Your task to perform on an android device: Search for seafood restaurants on Google Maps Image 0: 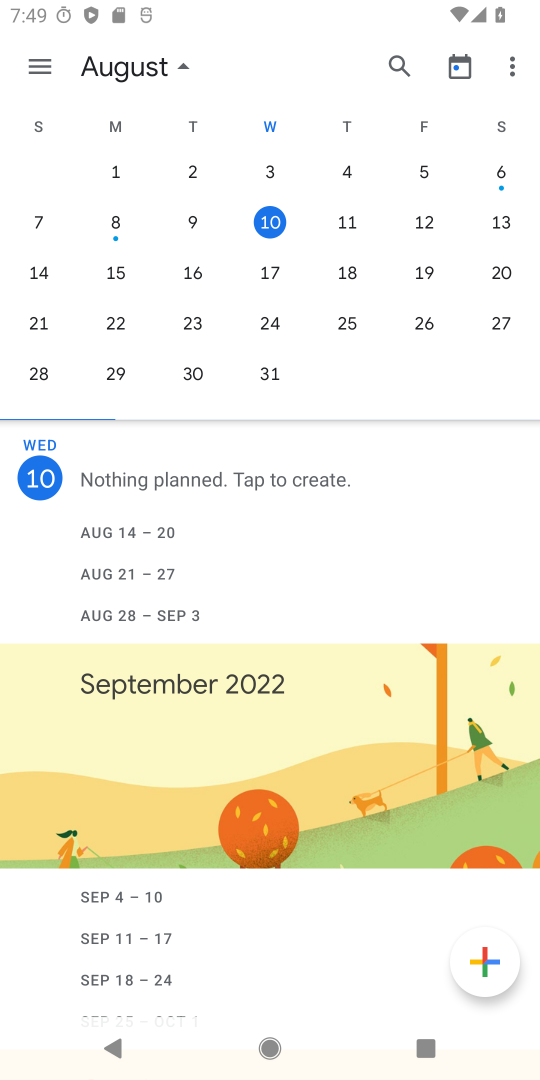
Step 0: press home button
Your task to perform on an android device: Search for seafood restaurants on Google Maps Image 1: 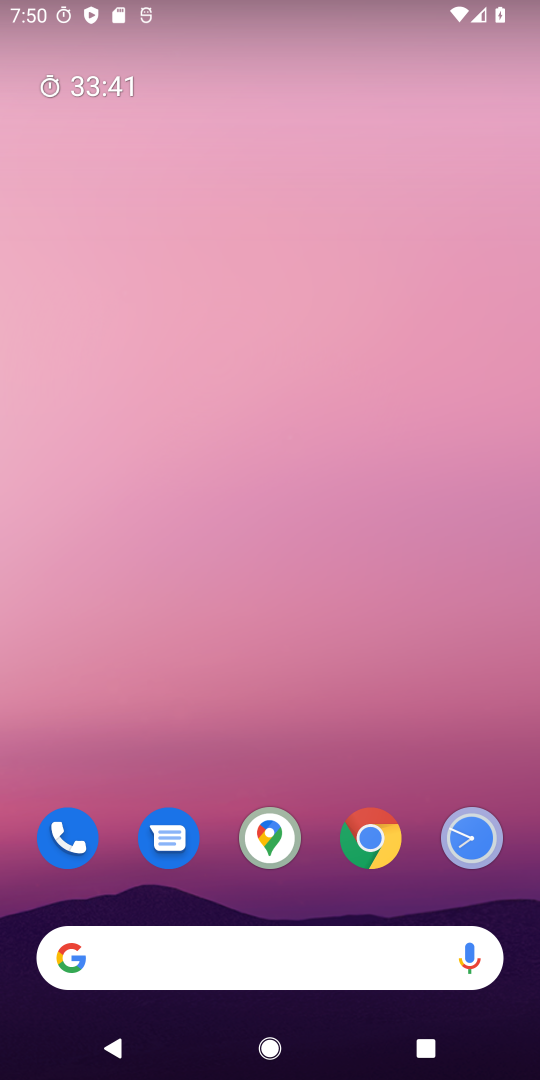
Step 1: drag from (346, 891) to (438, 252)
Your task to perform on an android device: Search for seafood restaurants on Google Maps Image 2: 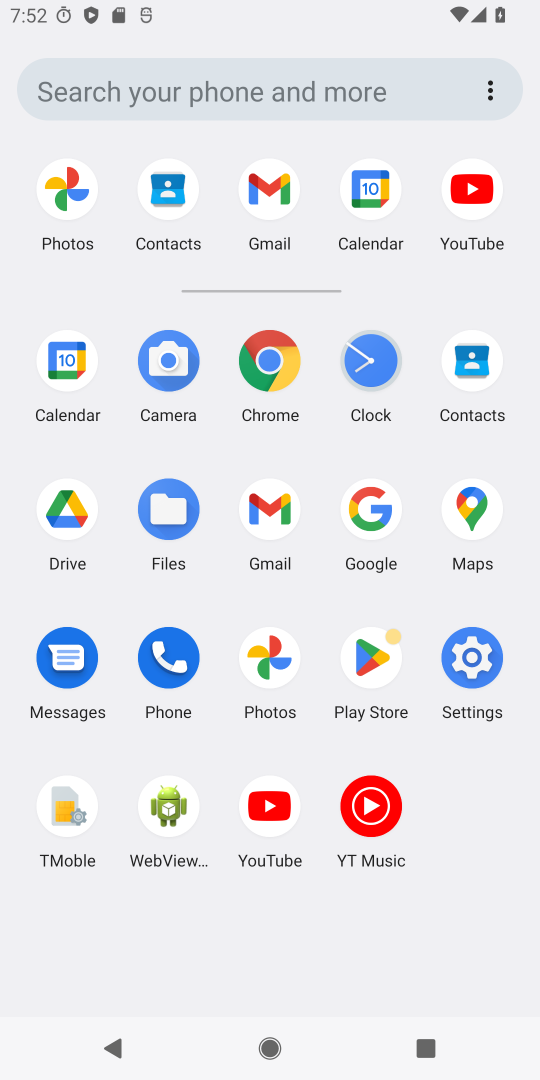
Step 2: click (482, 527)
Your task to perform on an android device: Search for seafood restaurants on Google Maps Image 3: 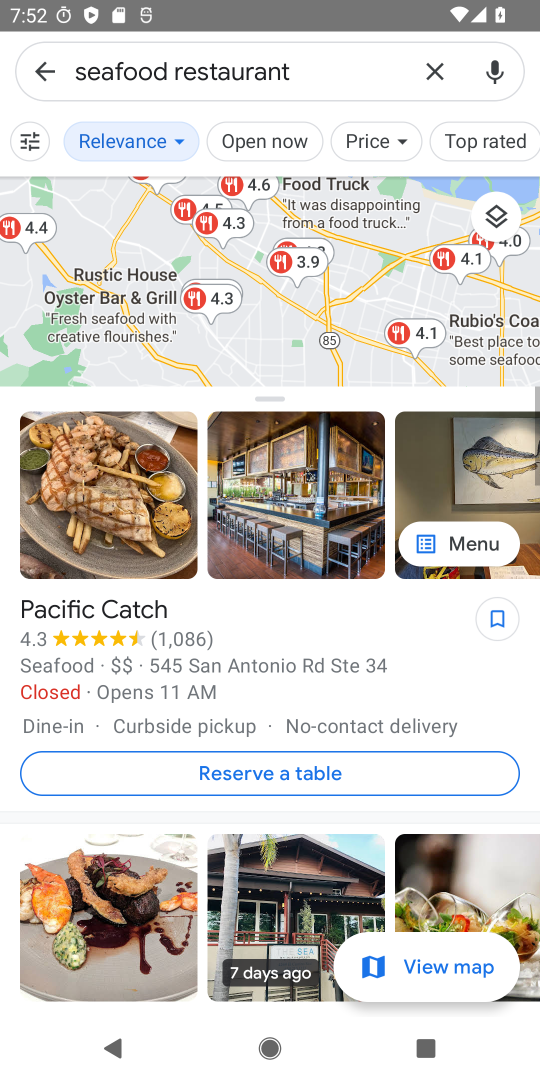
Step 3: task complete